Your task to perform on an android device: check battery use Image 0: 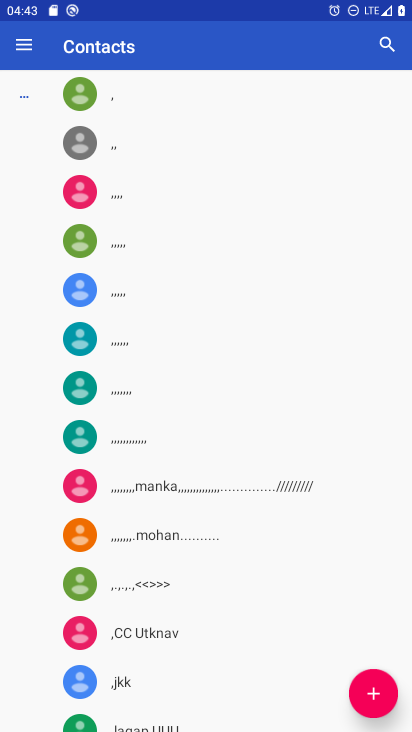
Step 0: press back button
Your task to perform on an android device: check battery use Image 1: 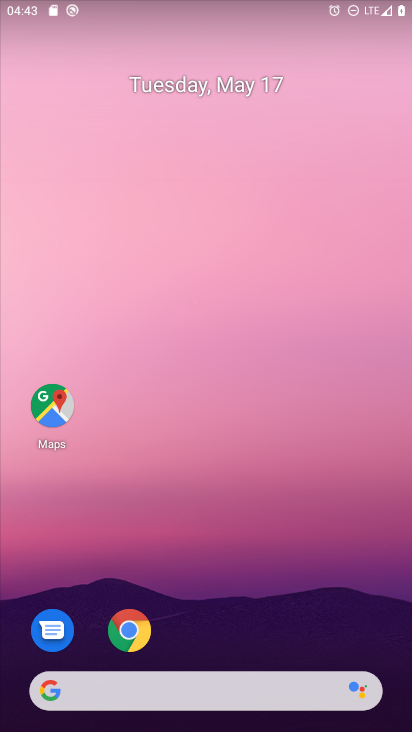
Step 1: drag from (212, 611) to (268, 59)
Your task to perform on an android device: check battery use Image 2: 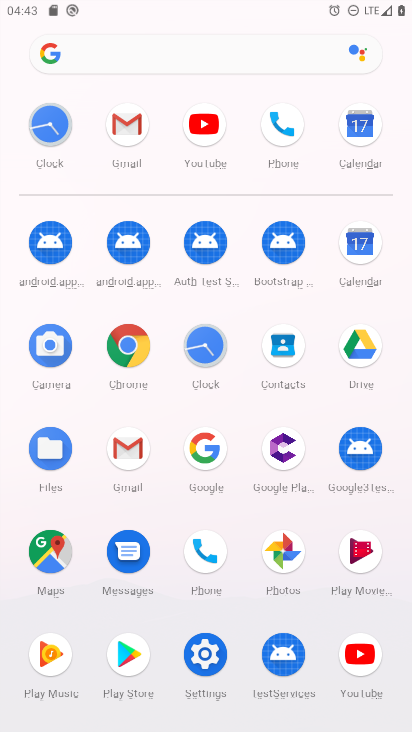
Step 2: click (203, 650)
Your task to perform on an android device: check battery use Image 3: 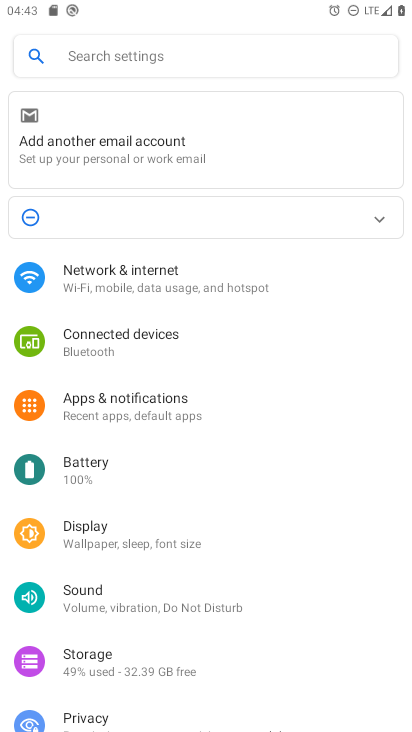
Step 3: click (93, 473)
Your task to perform on an android device: check battery use Image 4: 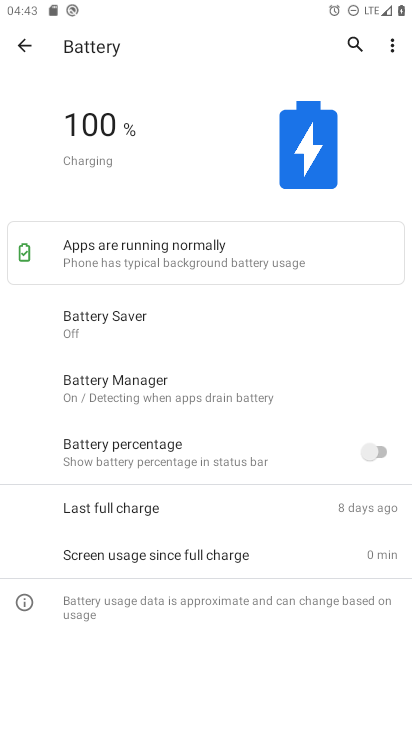
Step 4: click (394, 40)
Your task to perform on an android device: check battery use Image 5: 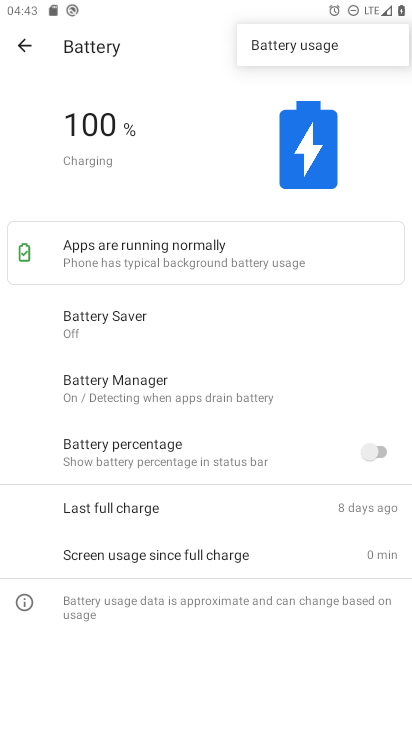
Step 5: click (308, 48)
Your task to perform on an android device: check battery use Image 6: 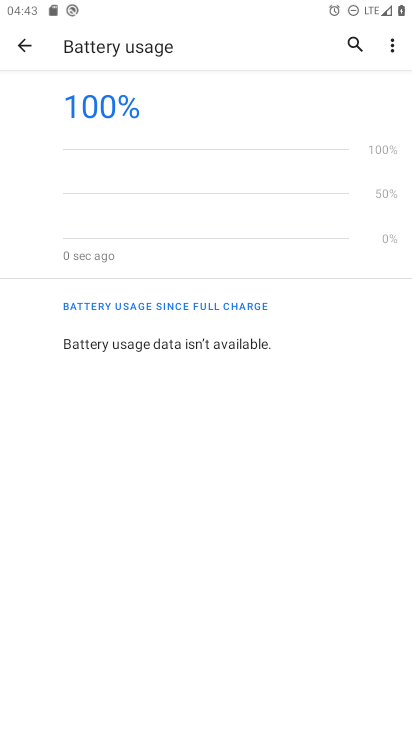
Step 6: task complete